Your task to perform on an android device: Turn on the flashlight Image 0: 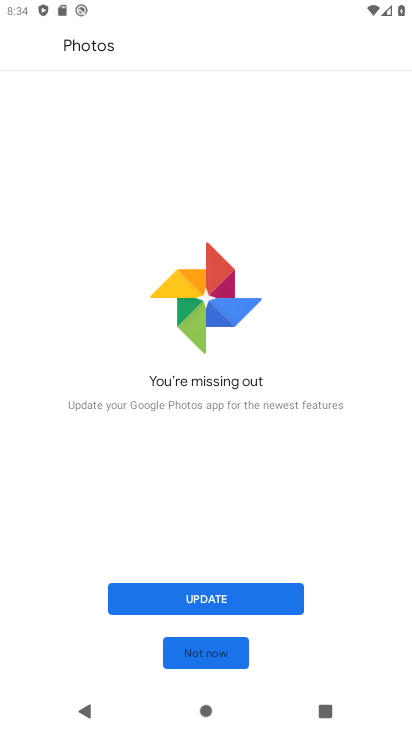
Step 0: press home button
Your task to perform on an android device: Turn on the flashlight Image 1: 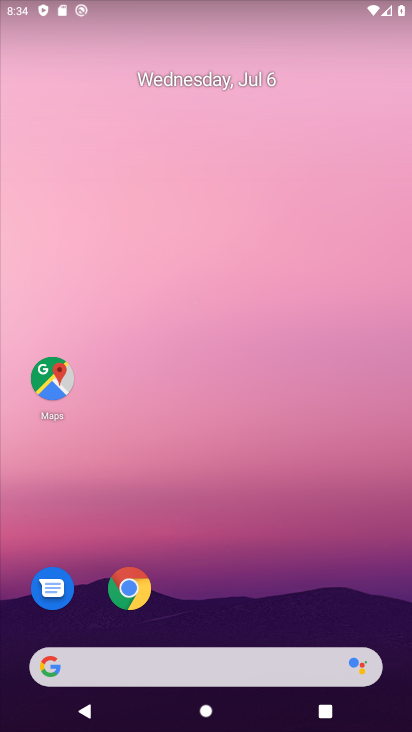
Step 1: drag from (186, 626) to (318, 153)
Your task to perform on an android device: Turn on the flashlight Image 2: 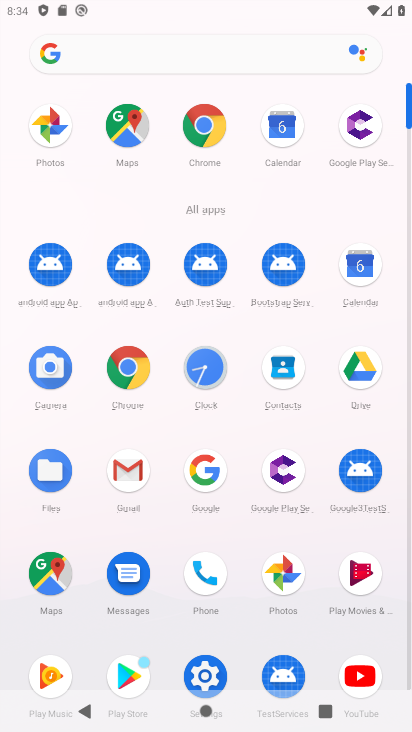
Step 2: click (196, 671)
Your task to perform on an android device: Turn on the flashlight Image 3: 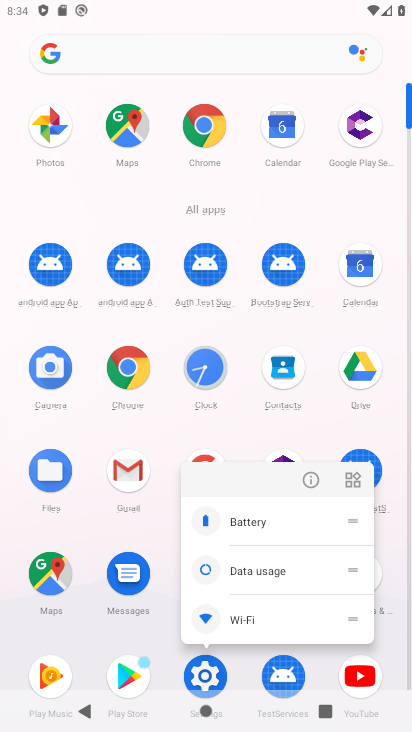
Step 3: click (308, 472)
Your task to perform on an android device: Turn on the flashlight Image 4: 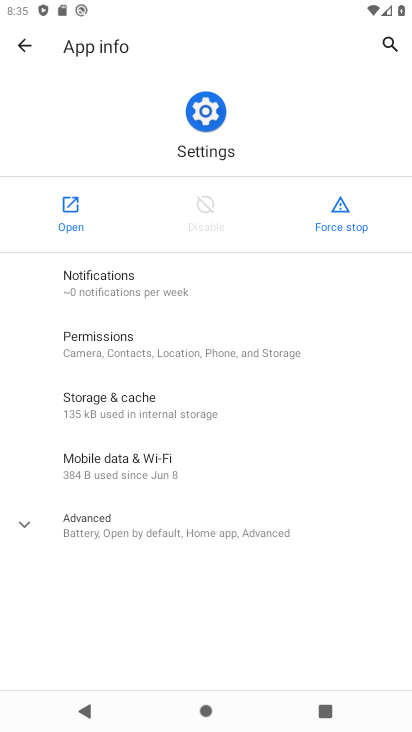
Step 4: click (67, 211)
Your task to perform on an android device: Turn on the flashlight Image 5: 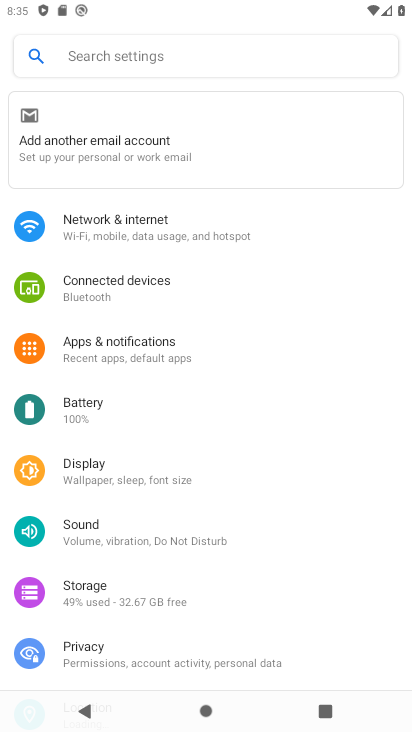
Step 5: click (173, 61)
Your task to perform on an android device: Turn on the flashlight Image 6: 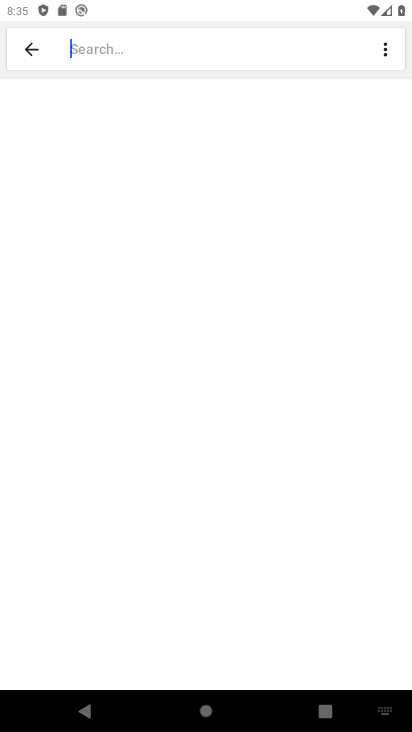
Step 6: click (252, 56)
Your task to perform on an android device: Turn on the flashlight Image 7: 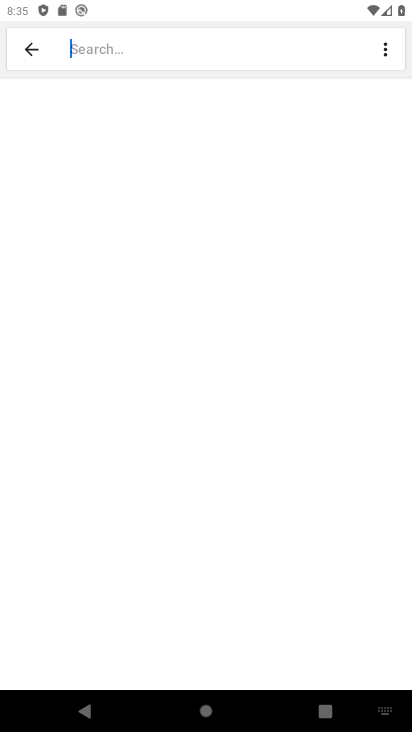
Step 7: type "flashlight"
Your task to perform on an android device: Turn on the flashlight Image 8: 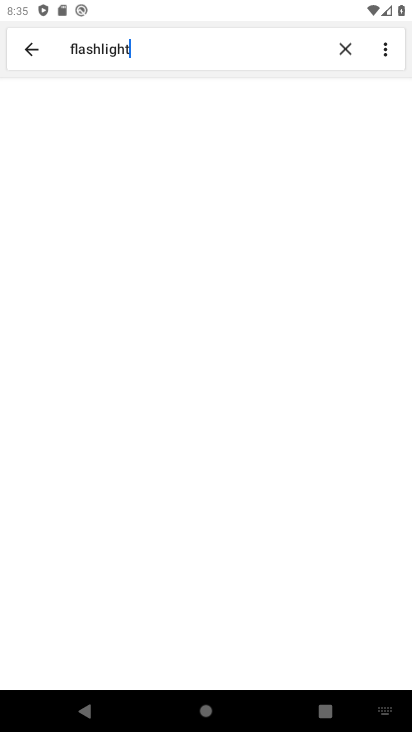
Step 8: type ""
Your task to perform on an android device: Turn on the flashlight Image 9: 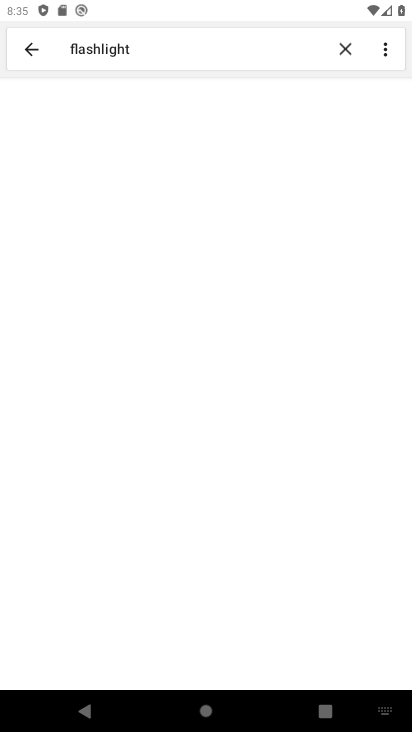
Step 9: click (171, 144)
Your task to perform on an android device: Turn on the flashlight Image 10: 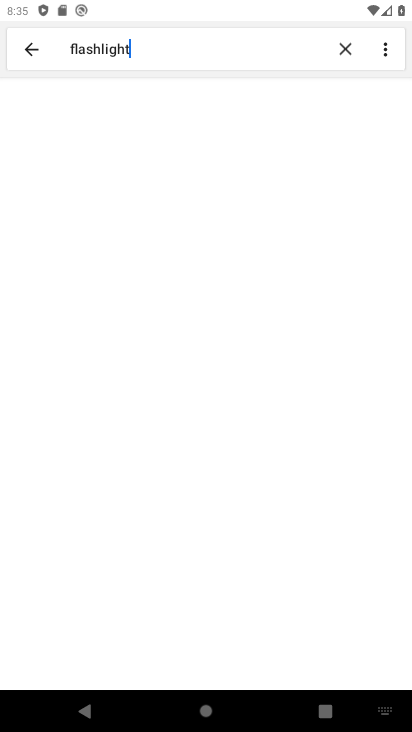
Step 10: drag from (169, 144) to (253, 405)
Your task to perform on an android device: Turn on the flashlight Image 11: 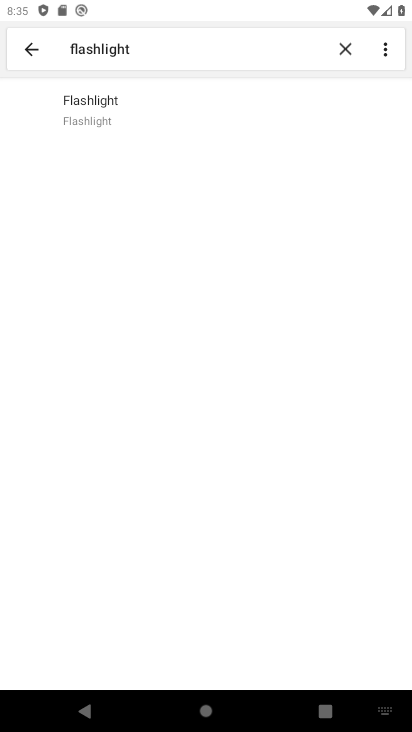
Step 11: drag from (248, 401) to (249, 210)
Your task to perform on an android device: Turn on the flashlight Image 12: 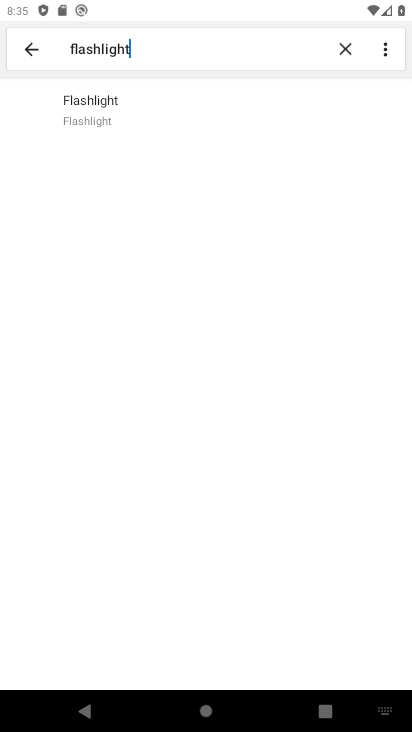
Step 12: click (242, 123)
Your task to perform on an android device: Turn on the flashlight Image 13: 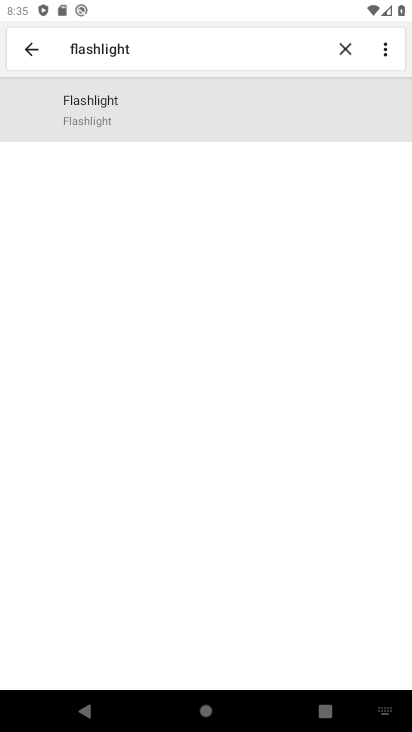
Step 13: click (156, 109)
Your task to perform on an android device: Turn on the flashlight Image 14: 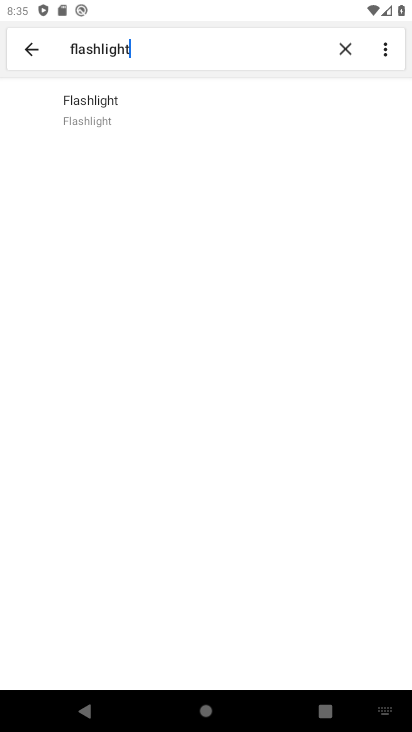
Step 14: task complete